Your task to perform on an android device: set the stopwatch Image 0: 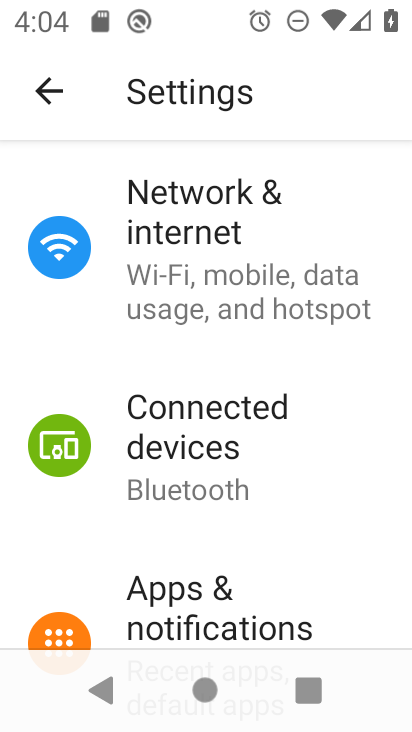
Step 0: press home button
Your task to perform on an android device: set the stopwatch Image 1: 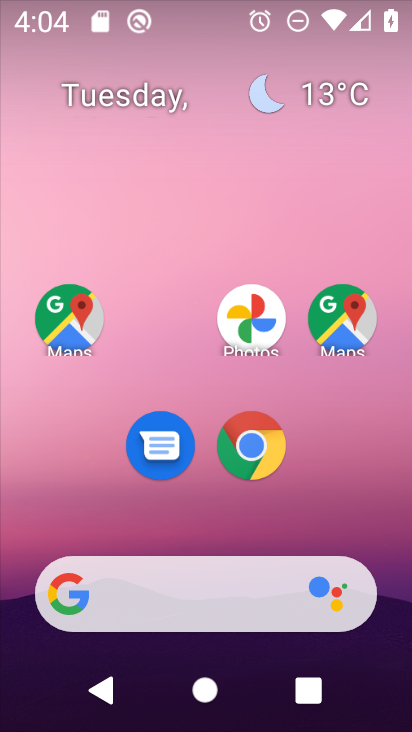
Step 1: drag from (391, 557) to (394, 276)
Your task to perform on an android device: set the stopwatch Image 2: 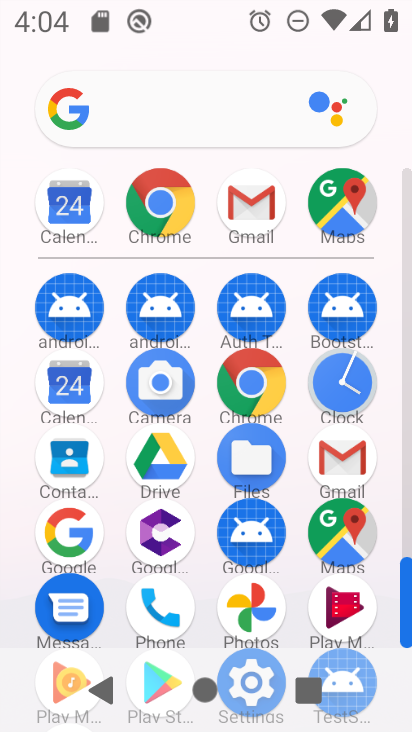
Step 2: click (356, 394)
Your task to perform on an android device: set the stopwatch Image 3: 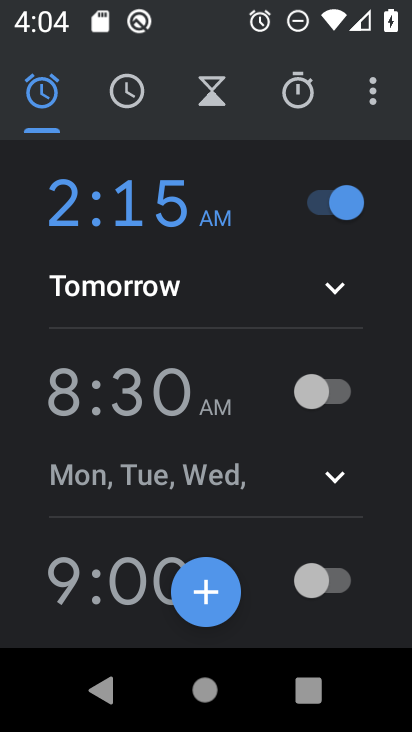
Step 3: click (293, 102)
Your task to perform on an android device: set the stopwatch Image 4: 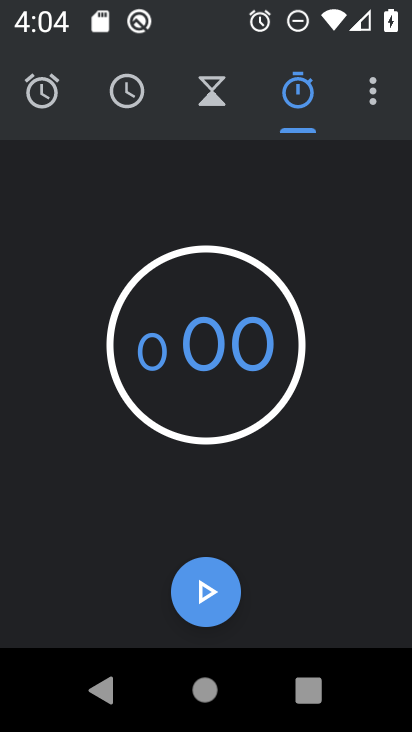
Step 4: click (205, 594)
Your task to perform on an android device: set the stopwatch Image 5: 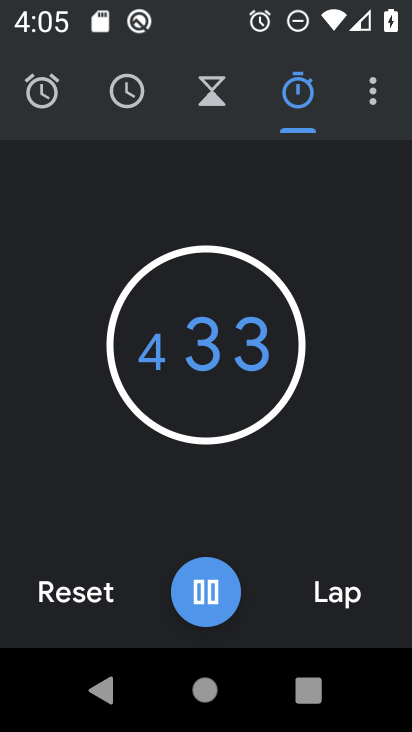
Step 5: task complete